Your task to perform on an android device: Clear the cart on bestbuy. Image 0: 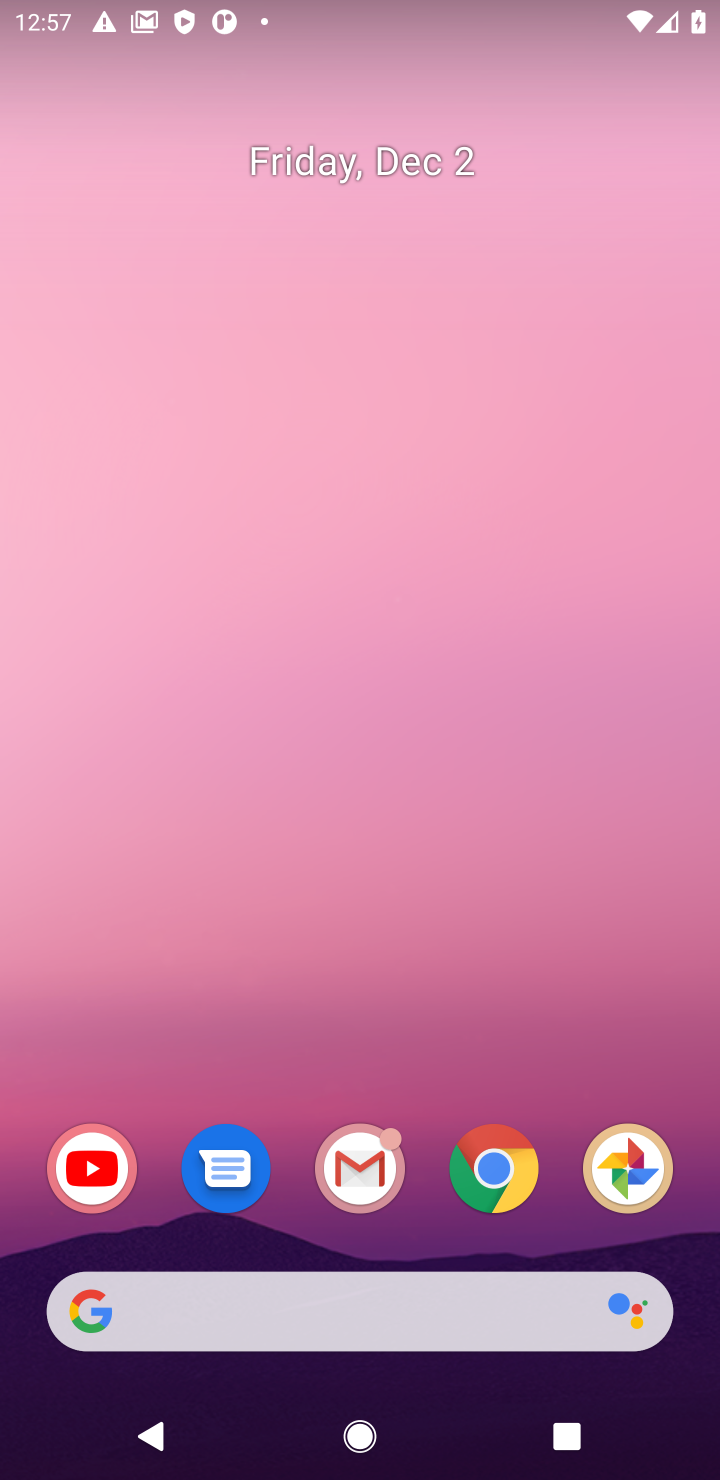
Step 0: click (506, 1168)
Your task to perform on an android device: Clear the cart on bestbuy. Image 1: 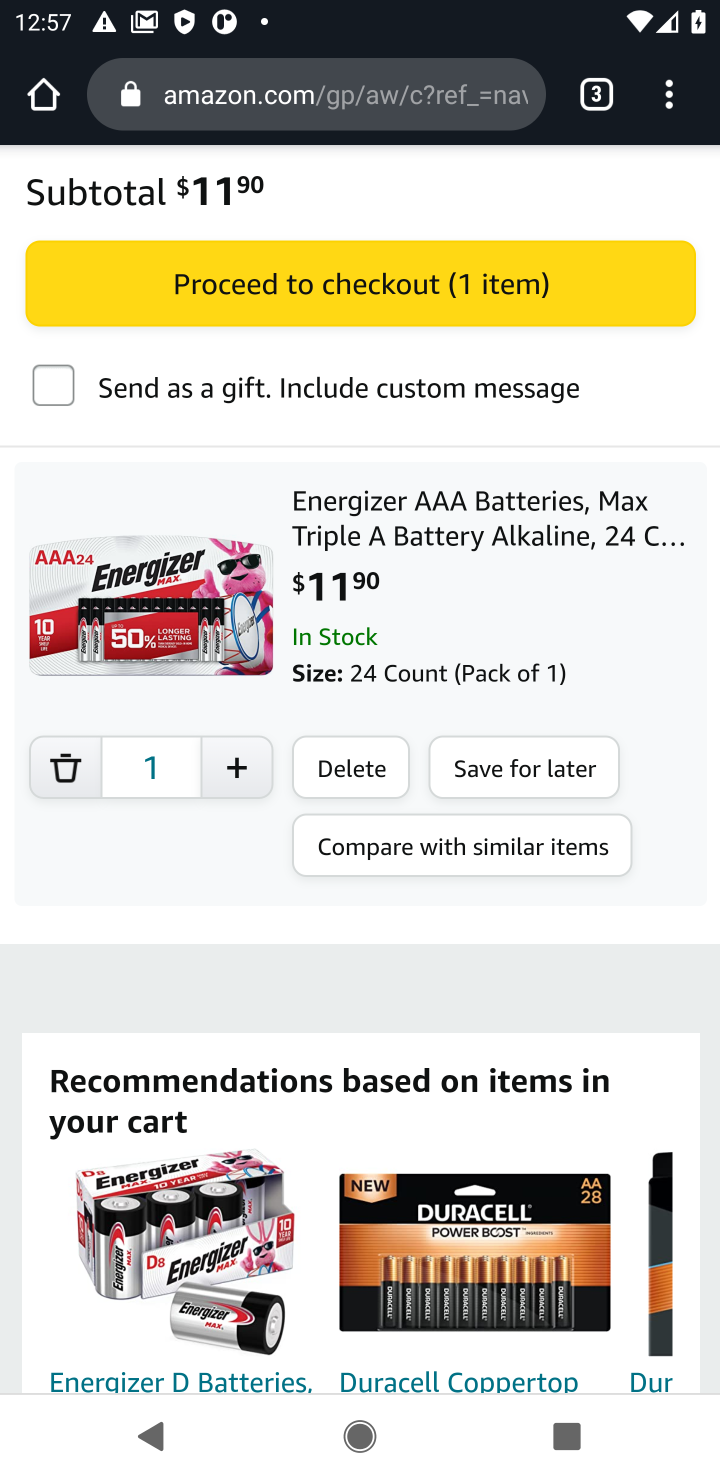
Step 1: click (282, 96)
Your task to perform on an android device: Clear the cart on bestbuy. Image 2: 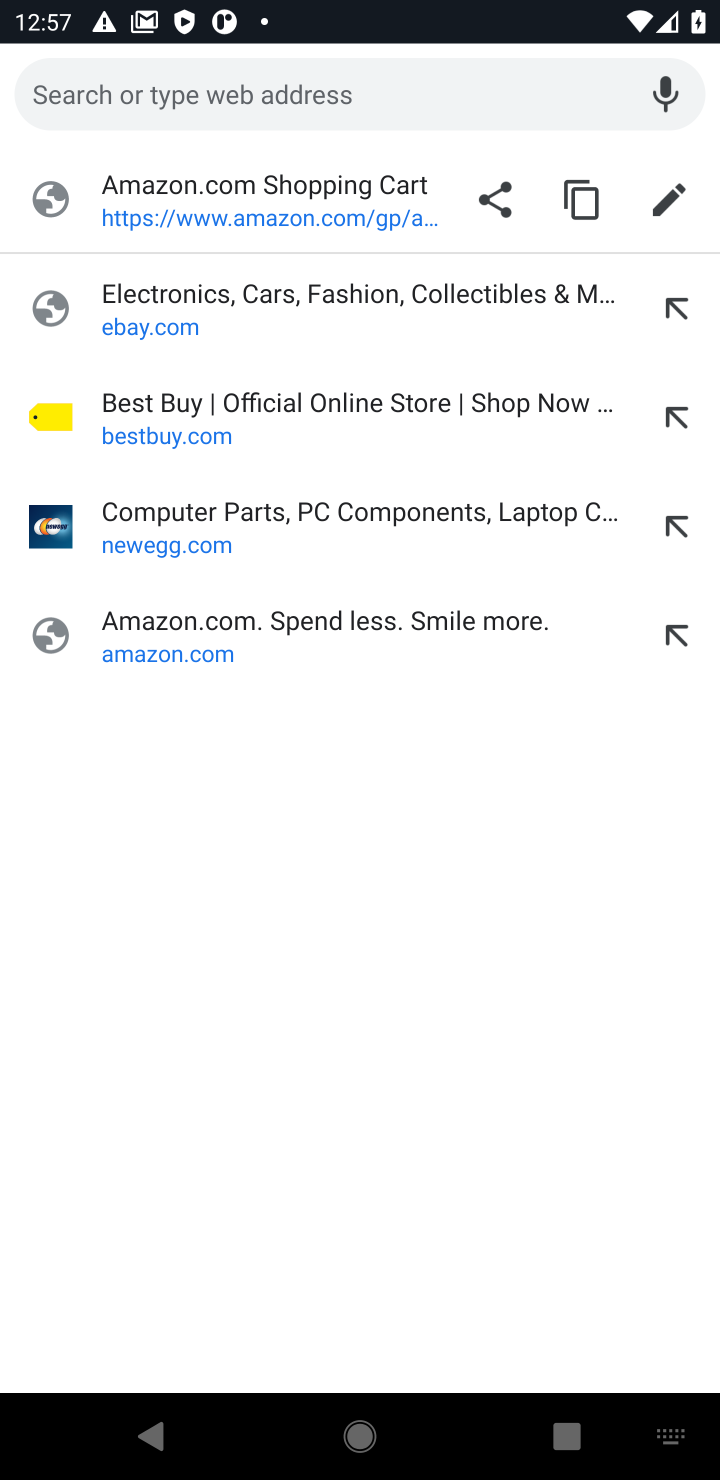
Step 2: click (145, 428)
Your task to perform on an android device: Clear the cart on bestbuy. Image 3: 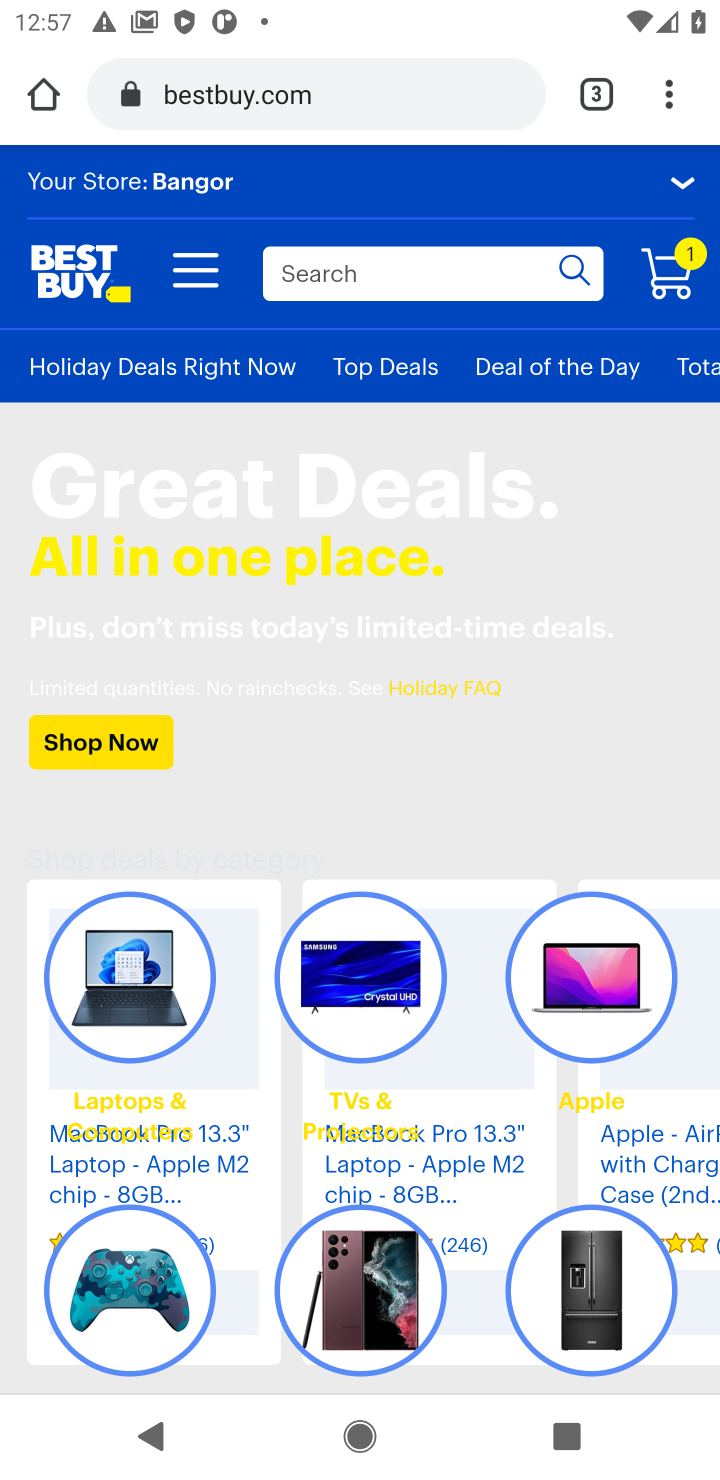
Step 3: click (661, 280)
Your task to perform on an android device: Clear the cart on bestbuy. Image 4: 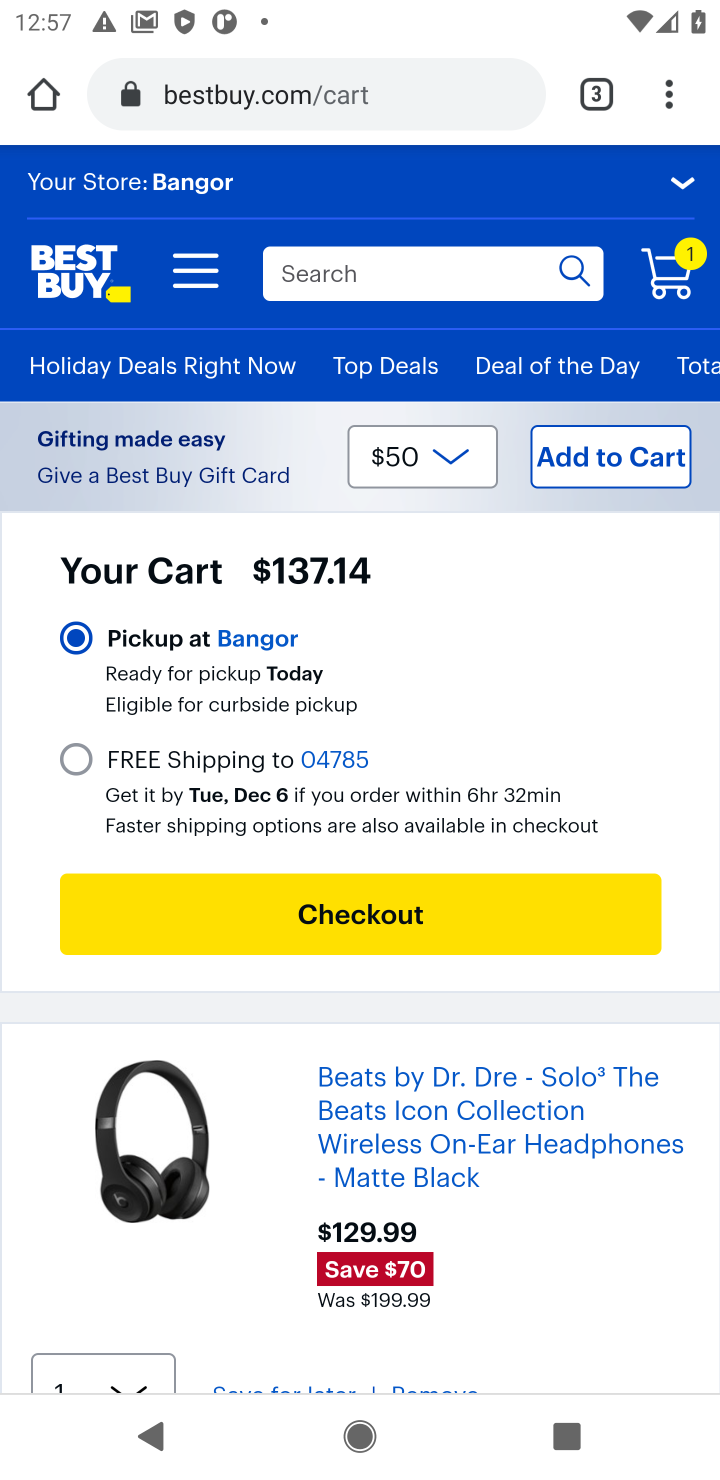
Step 4: drag from (434, 915) to (417, 488)
Your task to perform on an android device: Clear the cart on bestbuy. Image 5: 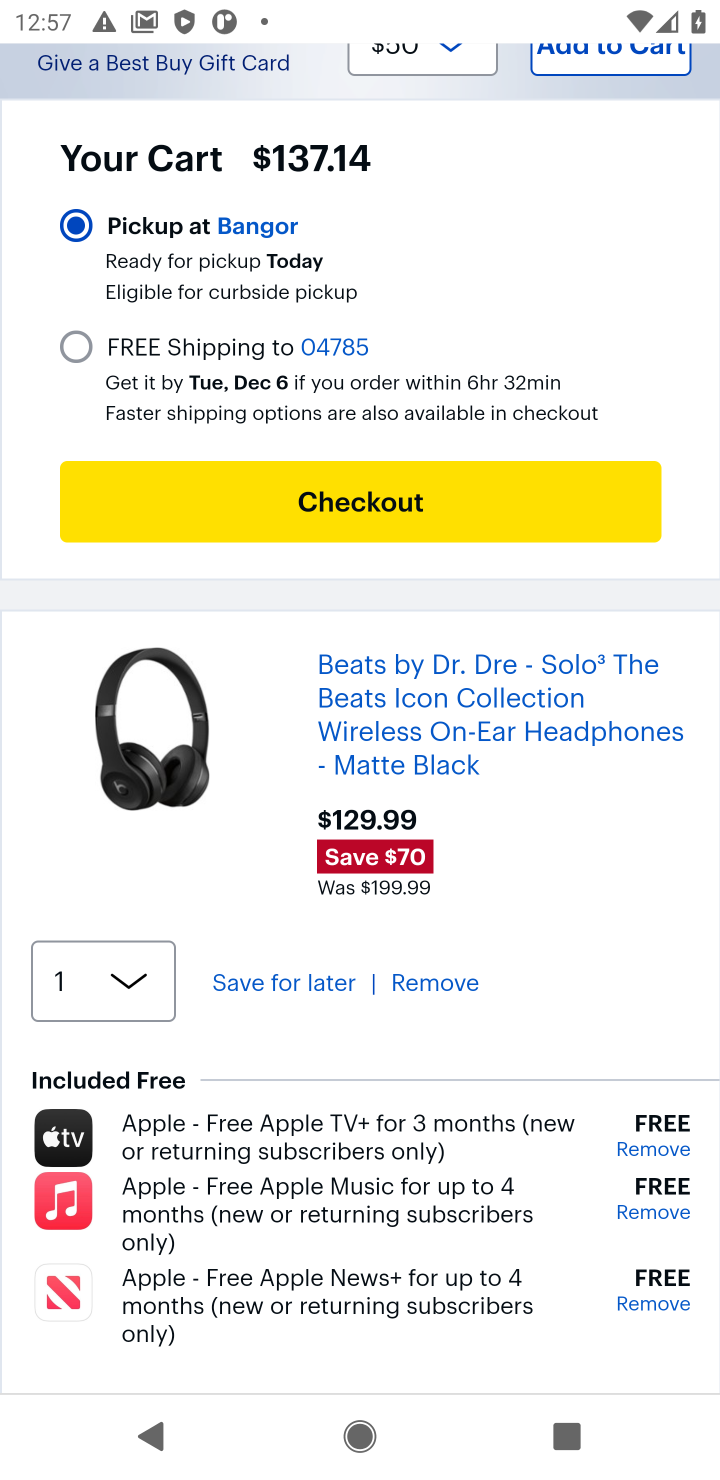
Step 5: click (404, 986)
Your task to perform on an android device: Clear the cart on bestbuy. Image 6: 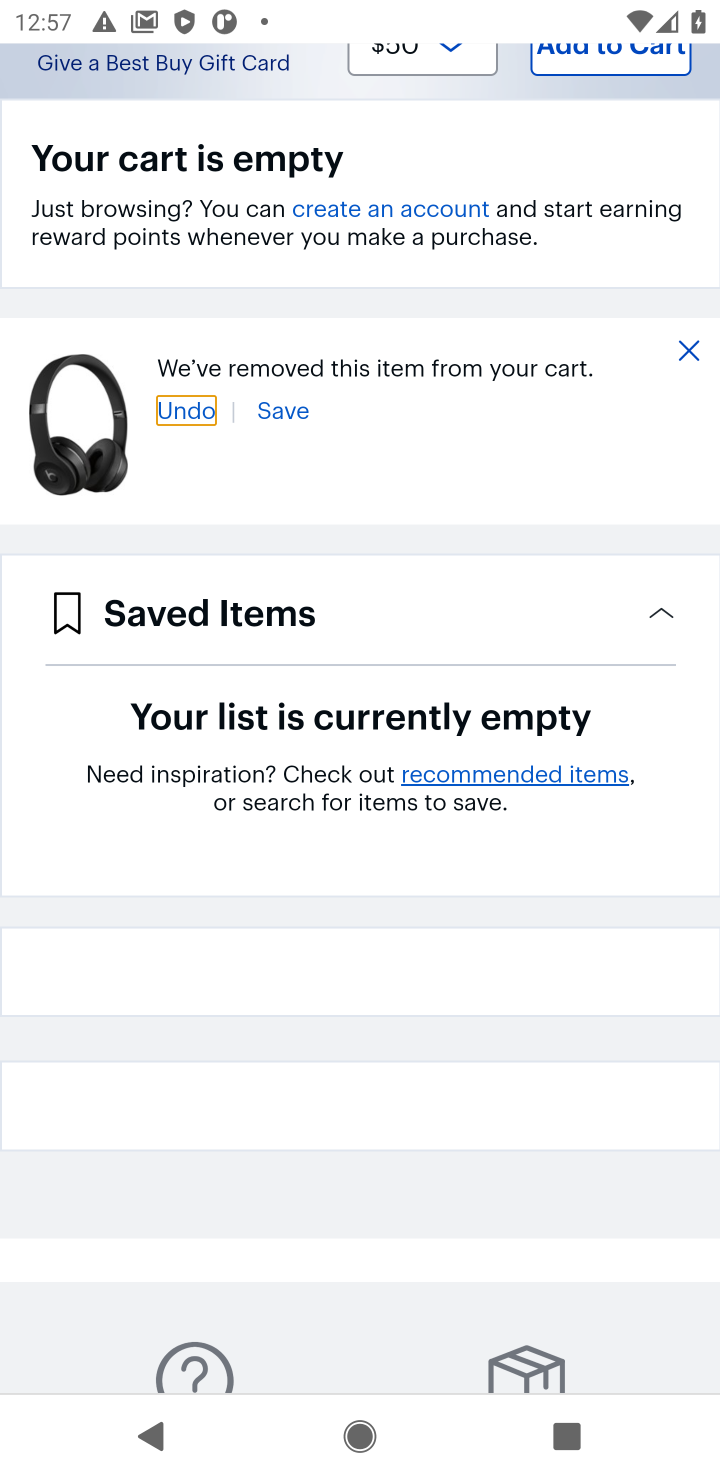
Step 6: task complete